Your task to perform on an android device: Check the news Image 0: 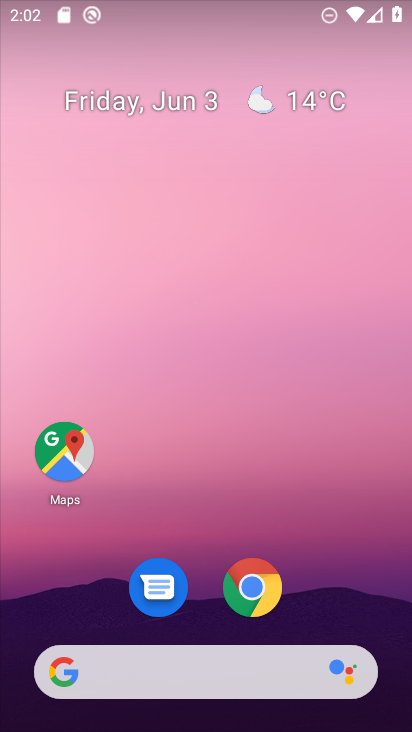
Step 0: click (153, 675)
Your task to perform on an android device: Check the news Image 1: 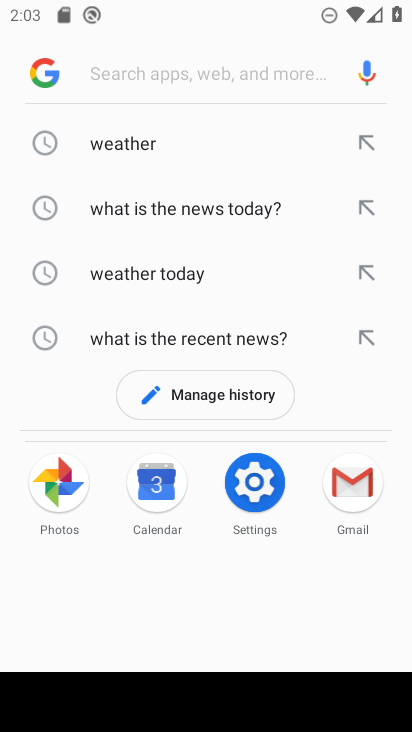
Step 1: type "news"
Your task to perform on an android device: Check the news Image 2: 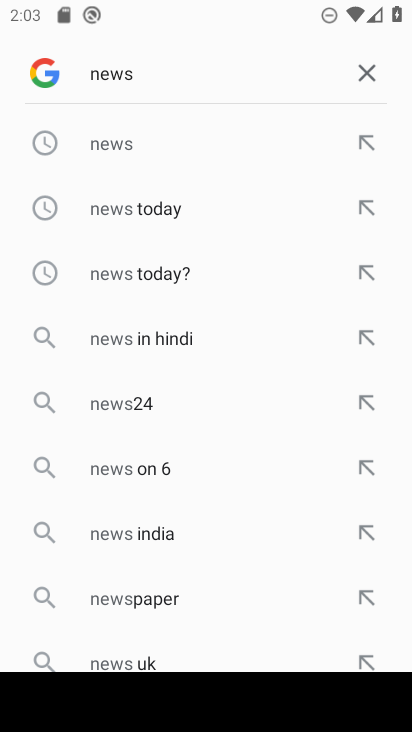
Step 2: click (156, 141)
Your task to perform on an android device: Check the news Image 3: 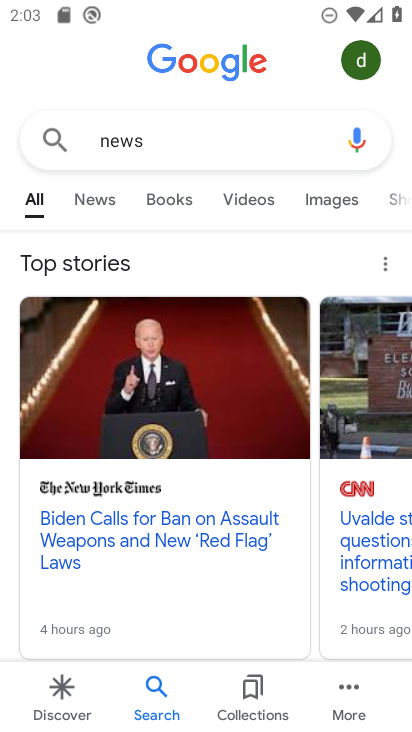
Step 3: click (109, 189)
Your task to perform on an android device: Check the news Image 4: 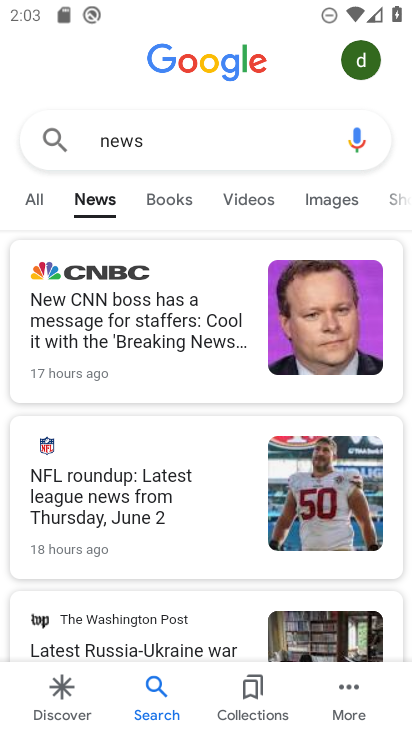
Step 4: task complete